Your task to perform on an android device: How do I get to the nearest McDonalds? Image 0: 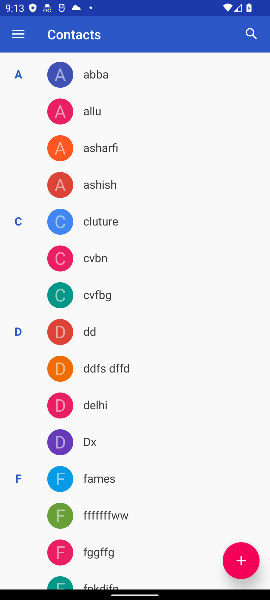
Step 0: press home button
Your task to perform on an android device: How do I get to the nearest McDonalds? Image 1: 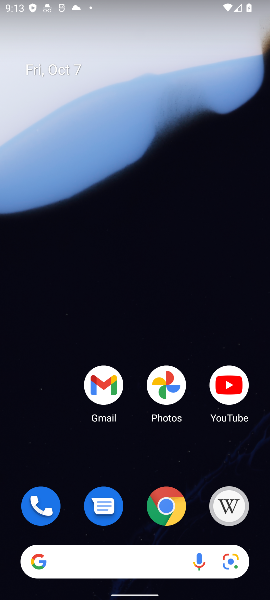
Step 1: click (167, 507)
Your task to perform on an android device: How do I get to the nearest McDonalds? Image 2: 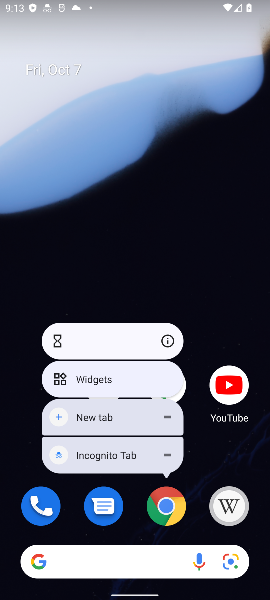
Step 2: click (167, 507)
Your task to perform on an android device: How do I get to the nearest McDonalds? Image 3: 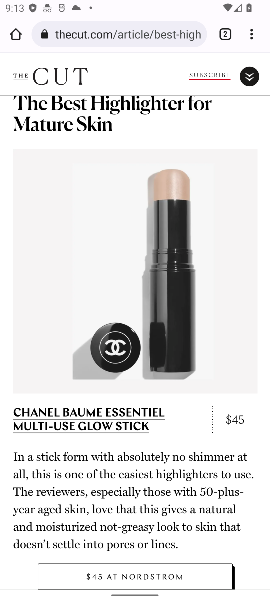
Step 3: click (129, 31)
Your task to perform on an android device: How do I get to the nearest McDonalds? Image 4: 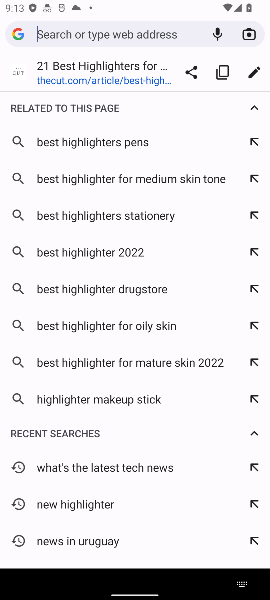
Step 4: type "nearest McDonalds"
Your task to perform on an android device: How do I get to the nearest McDonalds? Image 5: 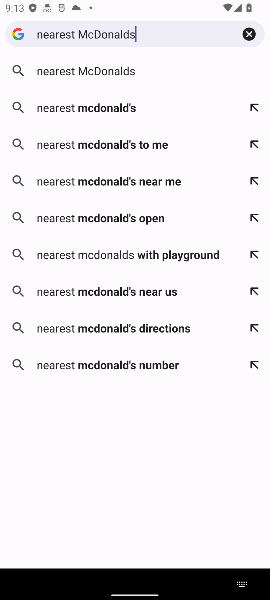
Step 5: click (114, 71)
Your task to perform on an android device: How do I get to the nearest McDonalds? Image 6: 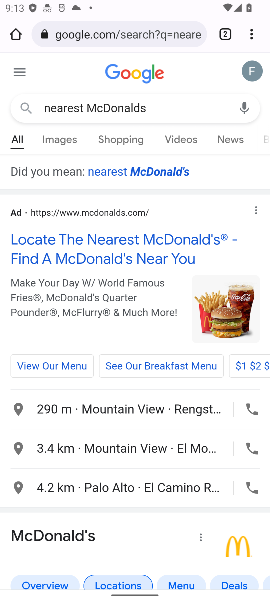
Step 6: drag from (112, 461) to (169, 280)
Your task to perform on an android device: How do I get to the nearest McDonalds? Image 7: 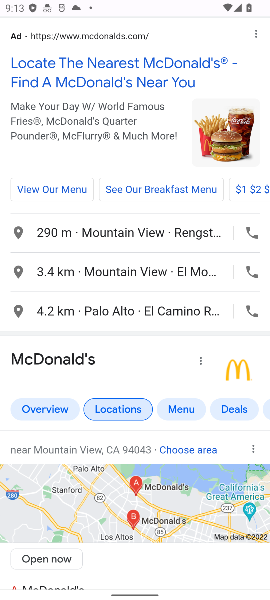
Step 7: drag from (86, 407) to (160, 205)
Your task to perform on an android device: How do I get to the nearest McDonalds? Image 8: 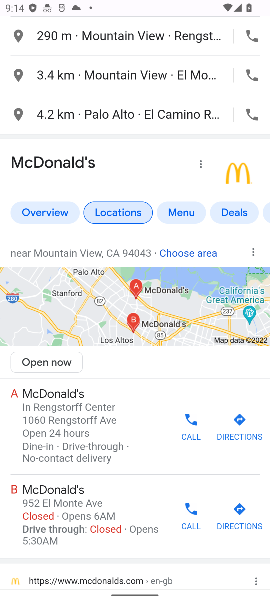
Step 8: drag from (83, 504) to (169, 264)
Your task to perform on an android device: How do I get to the nearest McDonalds? Image 9: 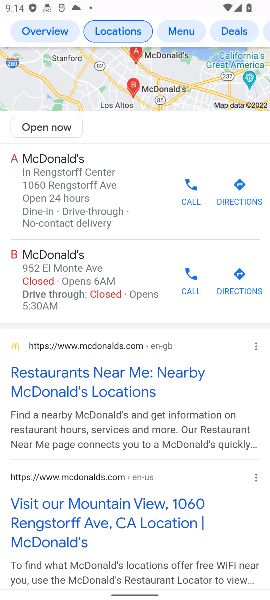
Step 9: click (88, 373)
Your task to perform on an android device: How do I get to the nearest McDonalds? Image 10: 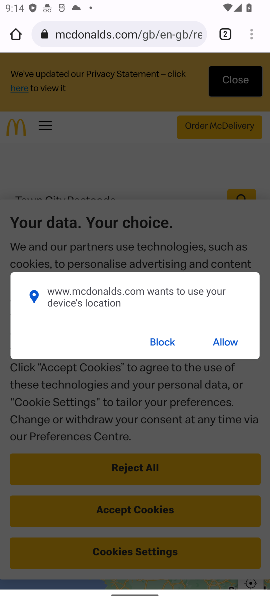
Step 10: click (157, 341)
Your task to perform on an android device: How do I get to the nearest McDonalds? Image 11: 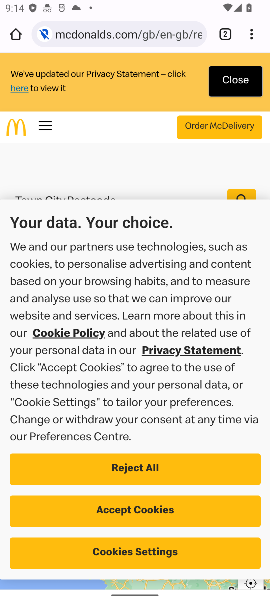
Step 11: drag from (70, 510) to (176, 245)
Your task to perform on an android device: How do I get to the nearest McDonalds? Image 12: 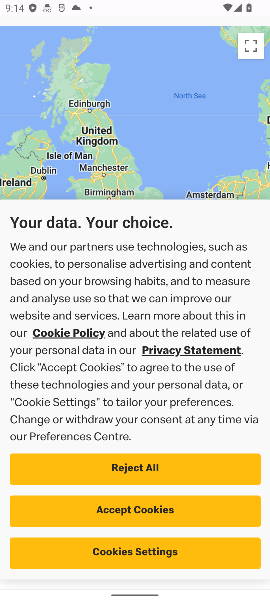
Step 12: click (146, 513)
Your task to perform on an android device: How do I get to the nearest McDonalds? Image 13: 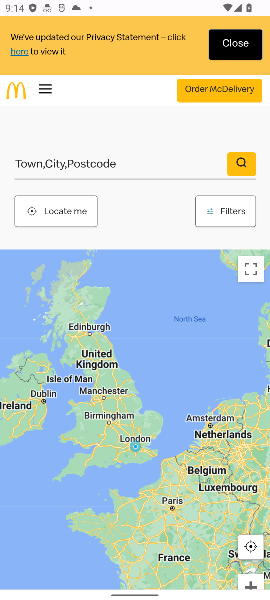
Step 13: task complete